Your task to perform on an android device: Open Maps and search for coffee Image 0: 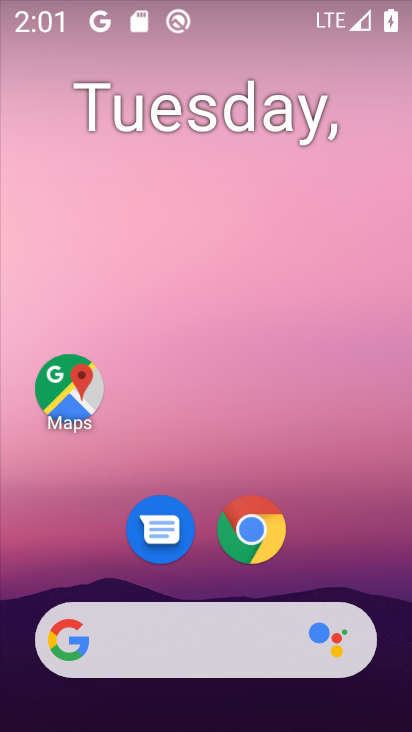
Step 0: click (66, 384)
Your task to perform on an android device: Open Maps and search for coffee Image 1: 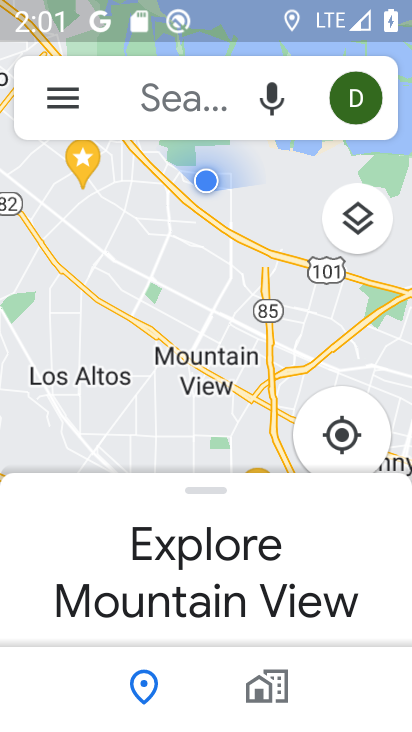
Step 1: click (161, 102)
Your task to perform on an android device: Open Maps and search for coffee Image 2: 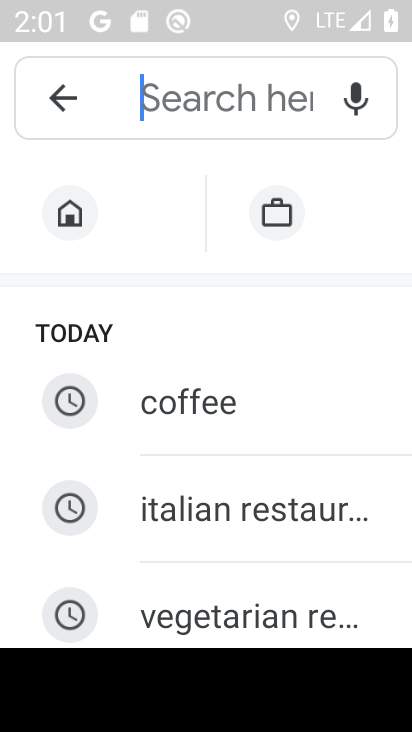
Step 2: type "coffee"
Your task to perform on an android device: Open Maps and search for coffee Image 3: 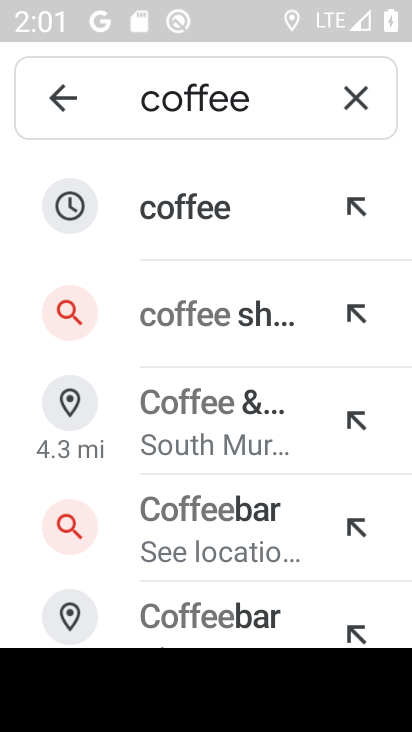
Step 3: click (177, 202)
Your task to perform on an android device: Open Maps and search for coffee Image 4: 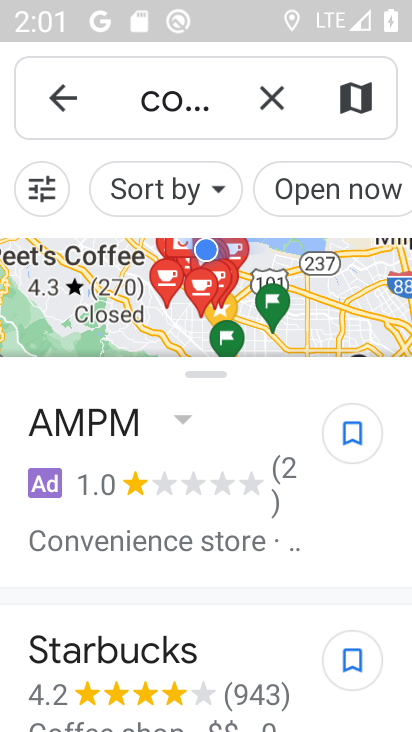
Step 4: task complete